Your task to perform on an android device: turn on bluetooth scan Image 0: 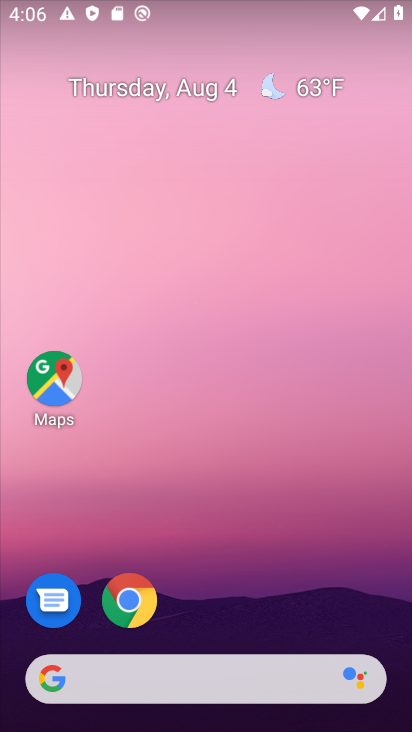
Step 0: drag from (299, 576) to (279, 78)
Your task to perform on an android device: turn on bluetooth scan Image 1: 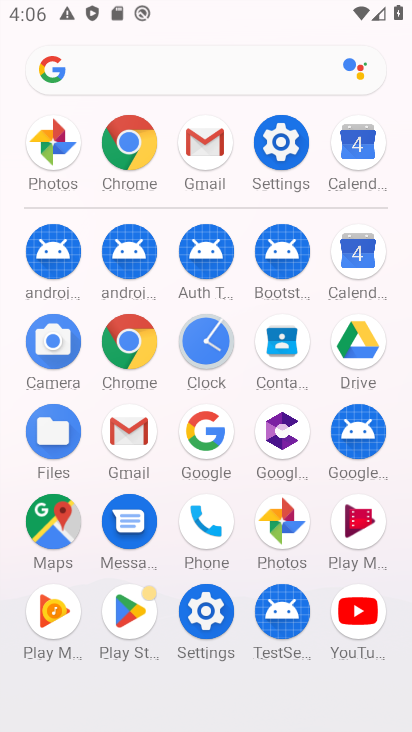
Step 1: click (258, 141)
Your task to perform on an android device: turn on bluetooth scan Image 2: 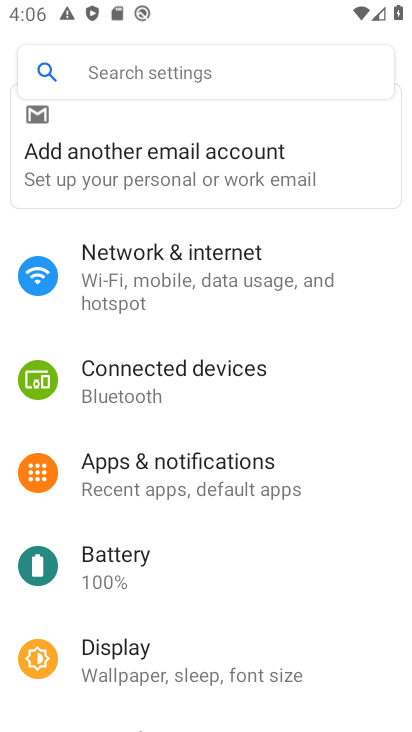
Step 2: click (205, 234)
Your task to perform on an android device: turn on bluetooth scan Image 3: 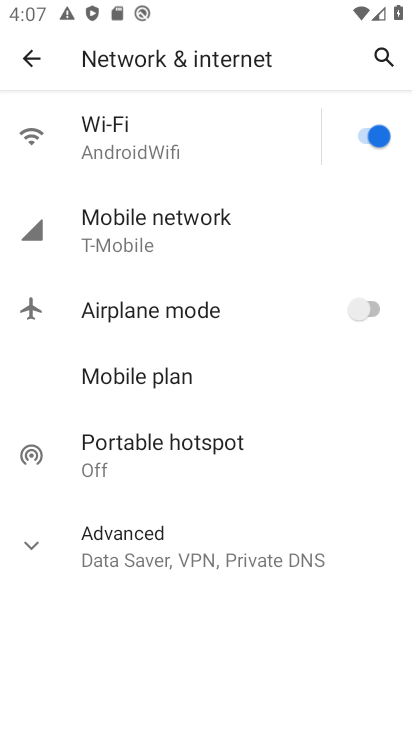
Step 3: click (38, 62)
Your task to perform on an android device: turn on bluetooth scan Image 4: 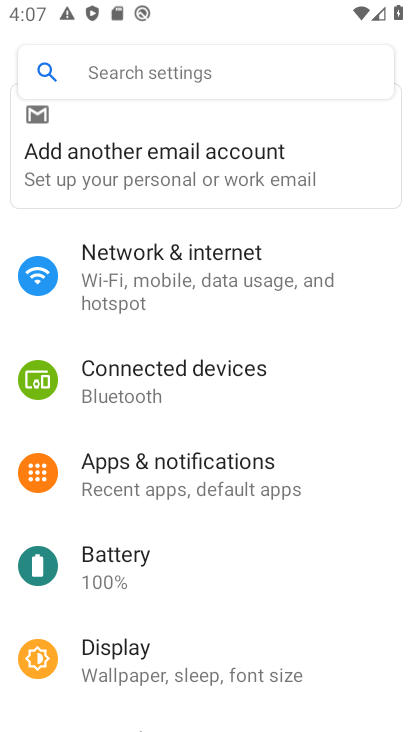
Step 4: drag from (232, 612) to (241, 110)
Your task to perform on an android device: turn on bluetooth scan Image 5: 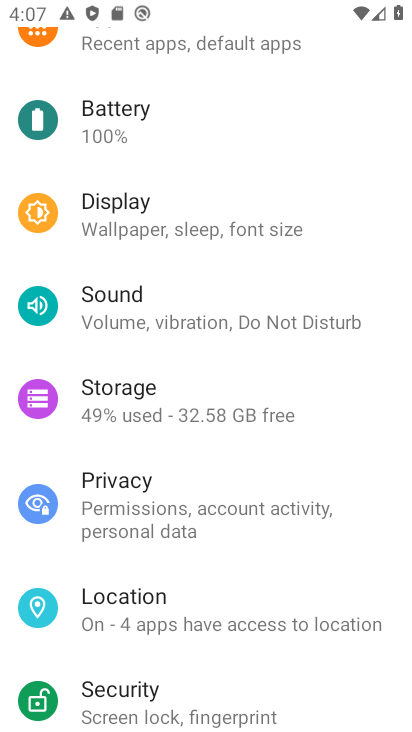
Step 5: click (152, 618)
Your task to perform on an android device: turn on bluetooth scan Image 6: 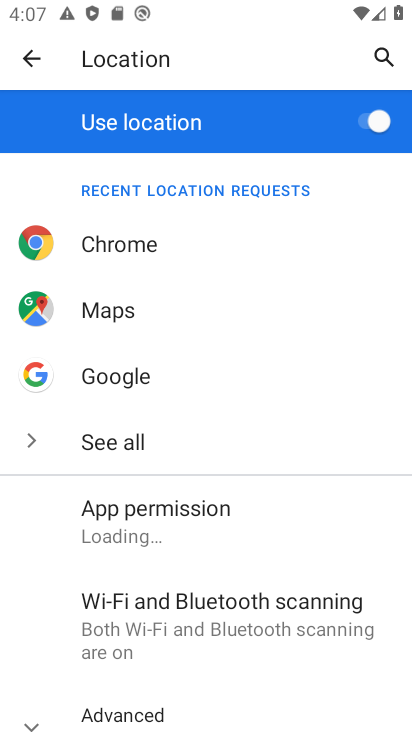
Step 6: click (177, 611)
Your task to perform on an android device: turn on bluetooth scan Image 7: 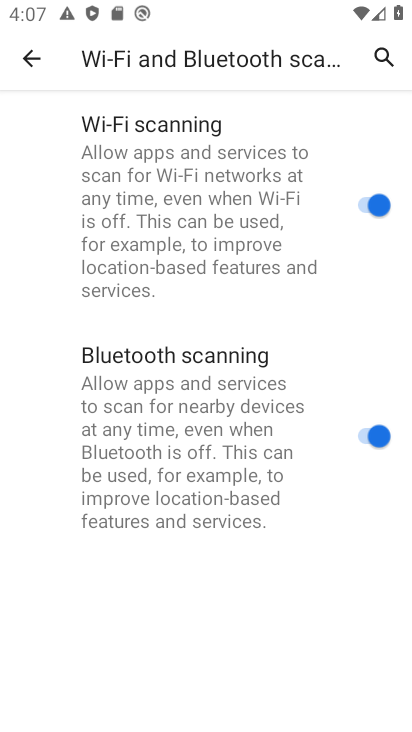
Step 7: task complete